Your task to perform on an android device: Go to settings Image 0: 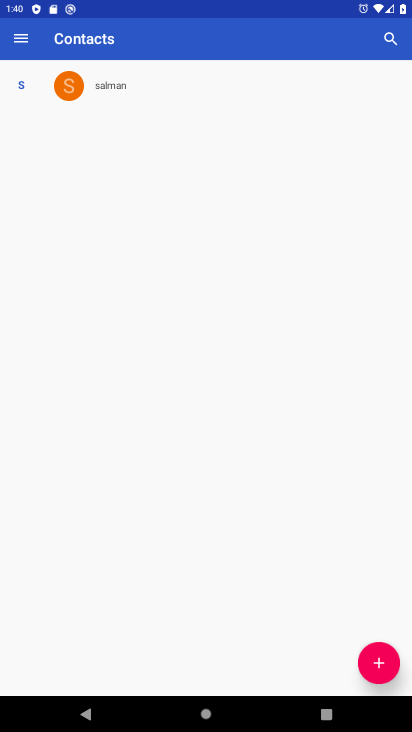
Step 0: press home button
Your task to perform on an android device: Go to settings Image 1: 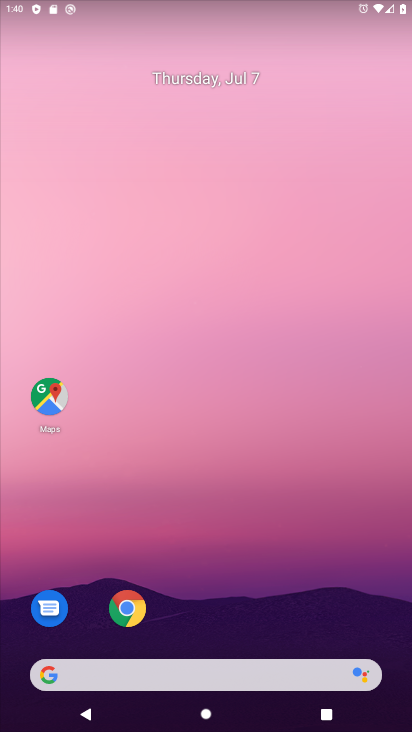
Step 1: drag from (246, 725) to (250, 38)
Your task to perform on an android device: Go to settings Image 2: 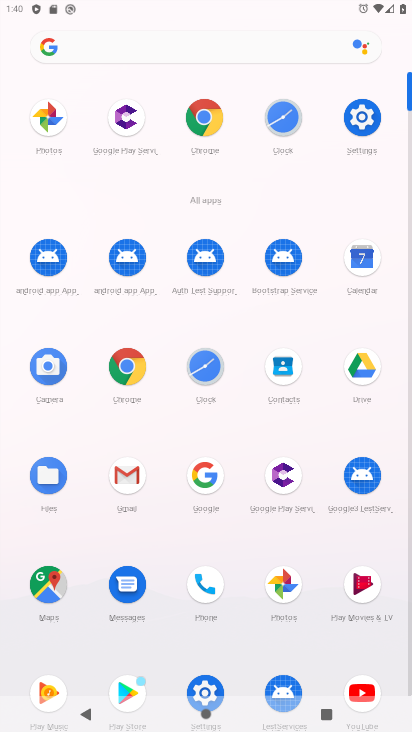
Step 2: click (370, 103)
Your task to perform on an android device: Go to settings Image 3: 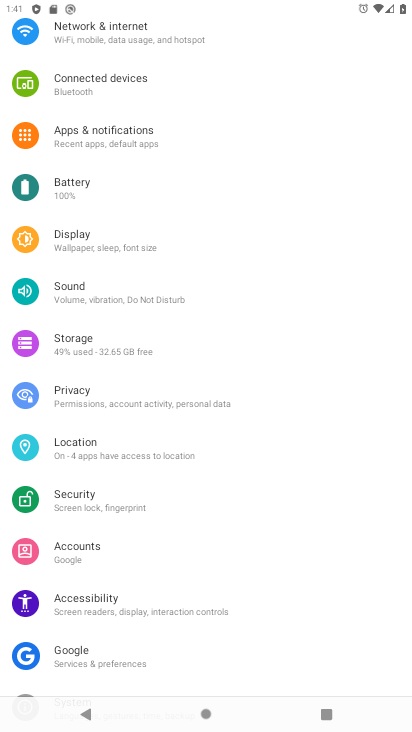
Step 3: task complete